Your task to perform on an android device: change notifications settings Image 0: 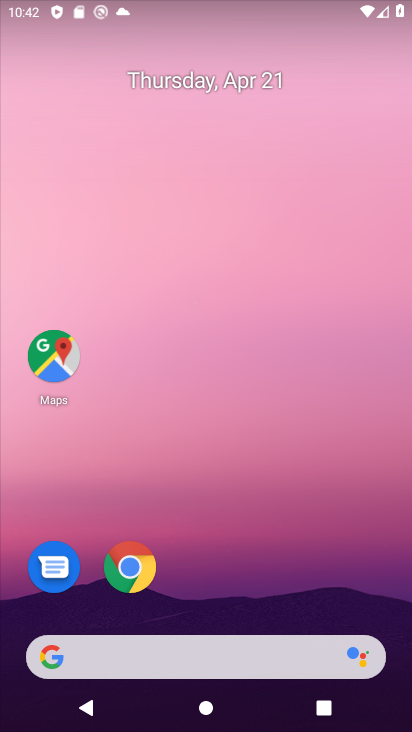
Step 0: drag from (217, 594) to (338, 42)
Your task to perform on an android device: change notifications settings Image 1: 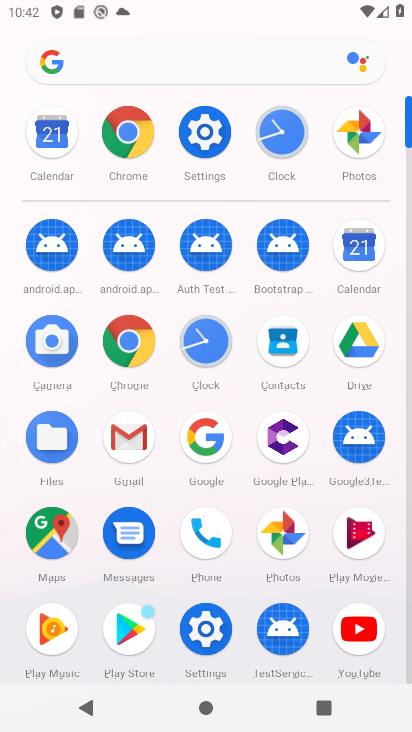
Step 1: click (211, 142)
Your task to perform on an android device: change notifications settings Image 2: 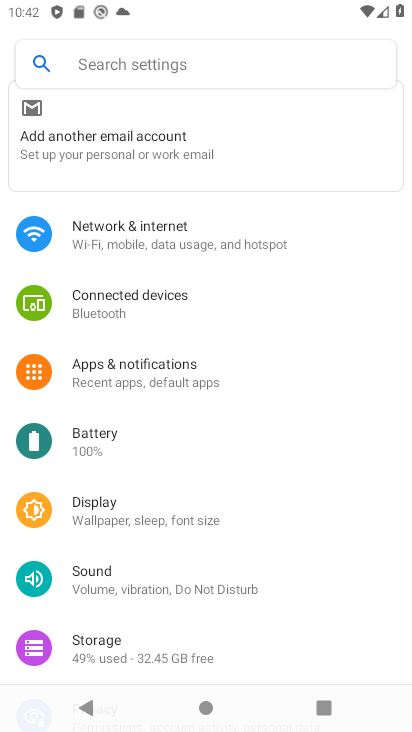
Step 2: click (166, 372)
Your task to perform on an android device: change notifications settings Image 3: 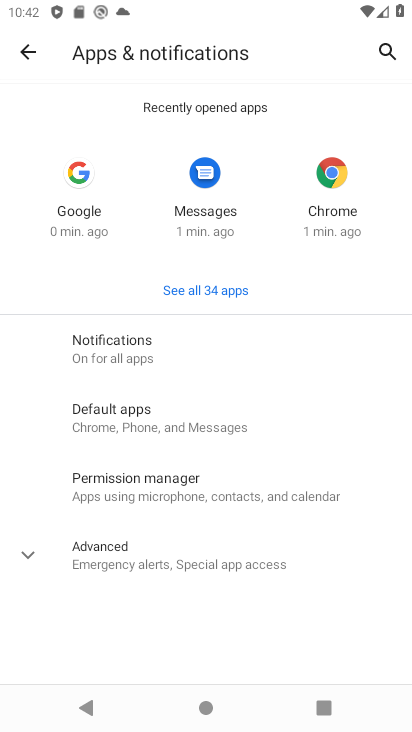
Step 3: click (129, 345)
Your task to perform on an android device: change notifications settings Image 4: 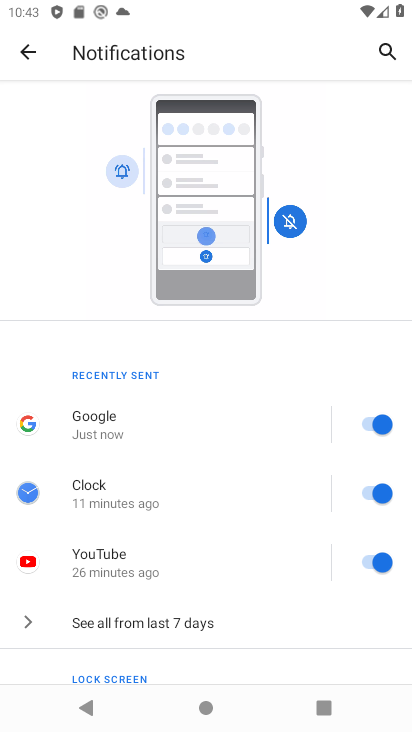
Step 4: click (368, 418)
Your task to perform on an android device: change notifications settings Image 5: 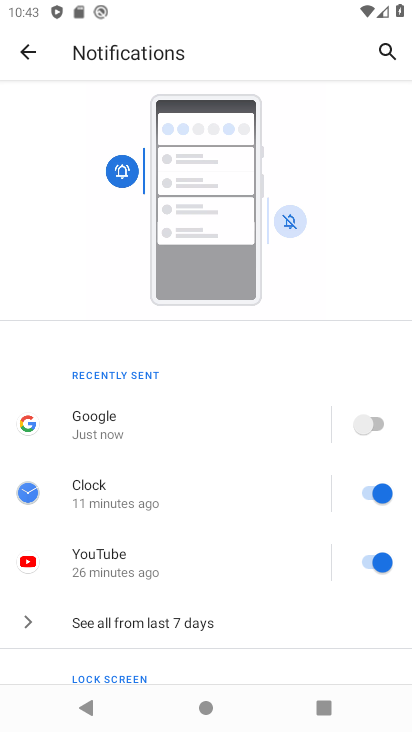
Step 5: click (369, 479)
Your task to perform on an android device: change notifications settings Image 6: 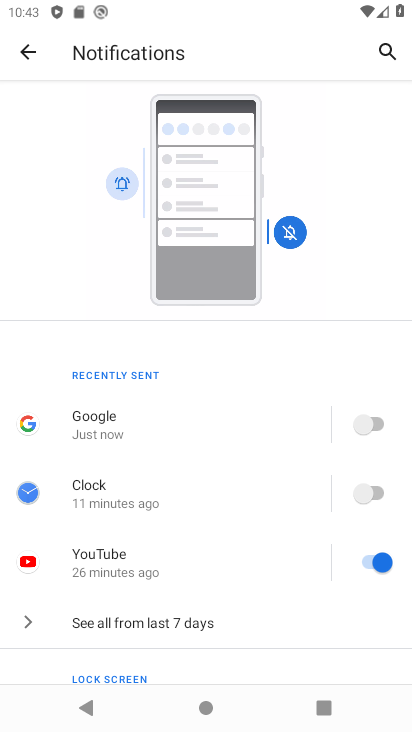
Step 6: click (367, 562)
Your task to perform on an android device: change notifications settings Image 7: 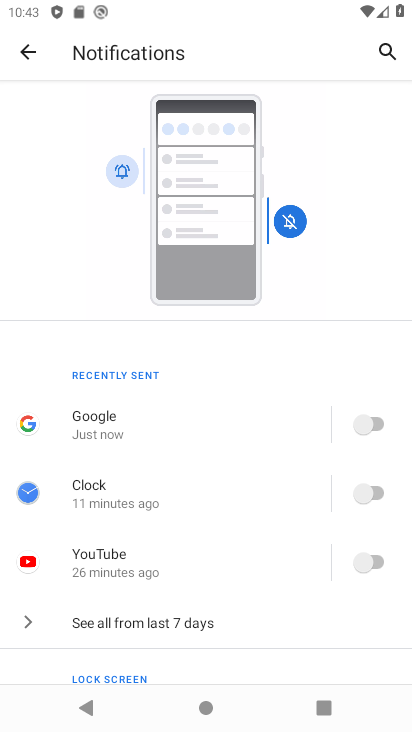
Step 7: drag from (236, 615) to (282, 215)
Your task to perform on an android device: change notifications settings Image 8: 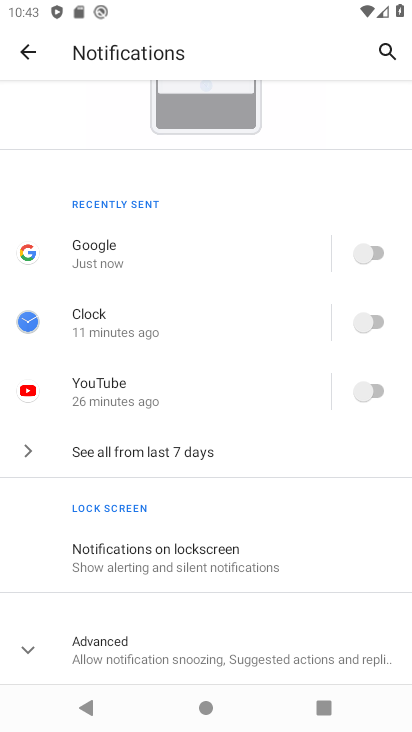
Step 8: click (216, 566)
Your task to perform on an android device: change notifications settings Image 9: 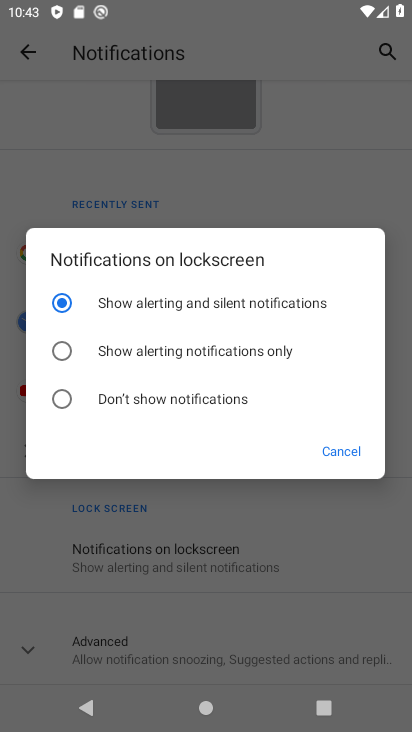
Step 9: click (66, 401)
Your task to perform on an android device: change notifications settings Image 10: 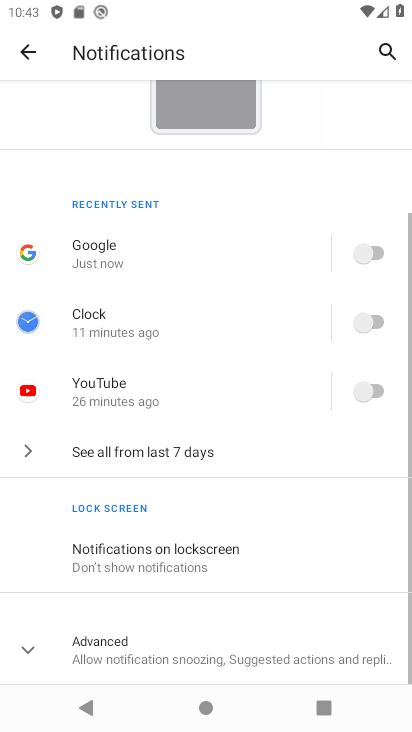
Step 10: drag from (237, 606) to (246, 408)
Your task to perform on an android device: change notifications settings Image 11: 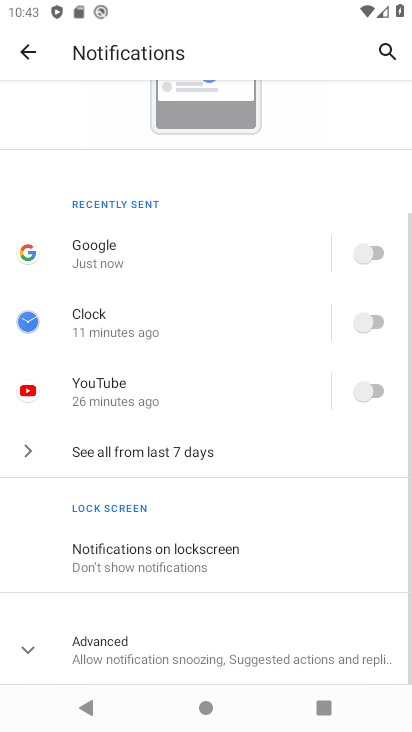
Step 11: click (62, 648)
Your task to perform on an android device: change notifications settings Image 12: 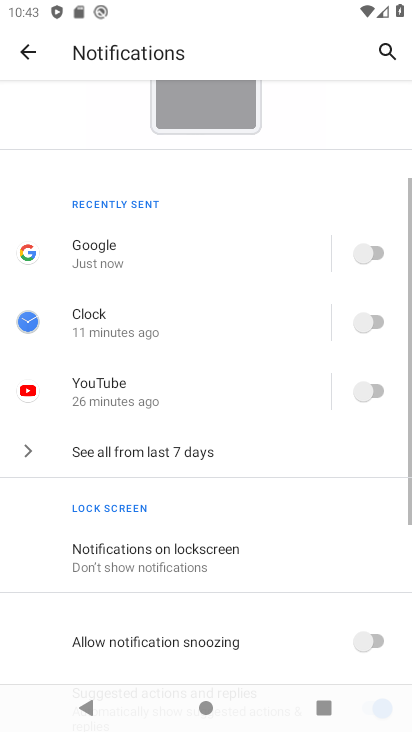
Step 12: drag from (211, 575) to (272, 140)
Your task to perform on an android device: change notifications settings Image 13: 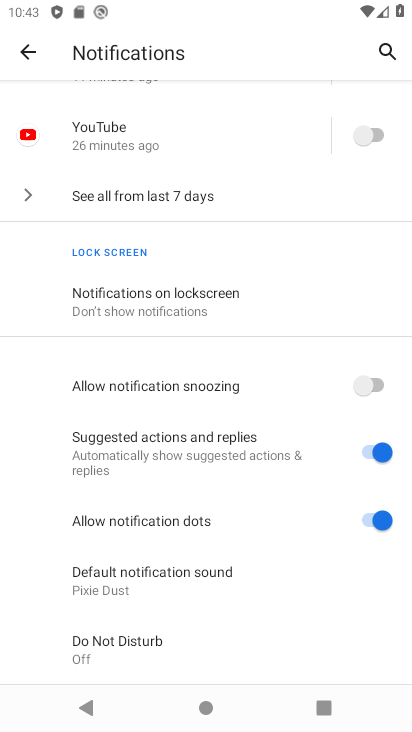
Step 13: click (380, 373)
Your task to perform on an android device: change notifications settings Image 14: 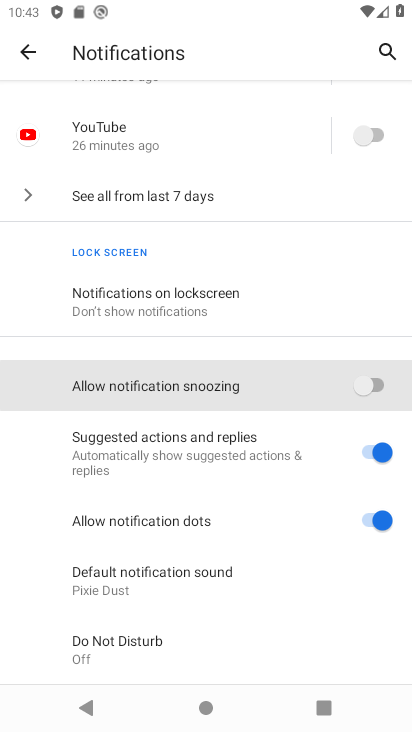
Step 14: click (362, 455)
Your task to perform on an android device: change notifications settings Image 15: 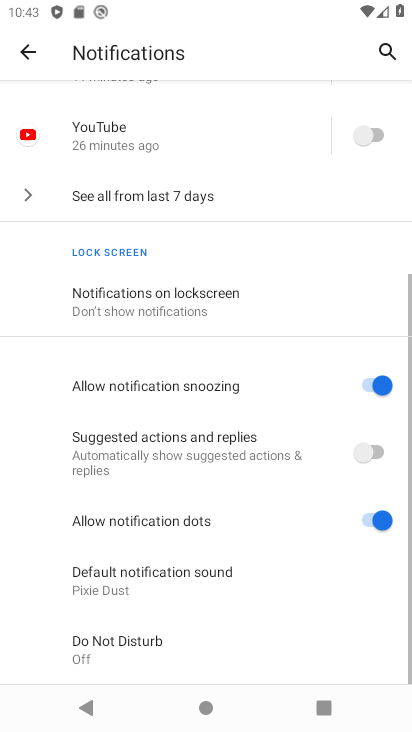
Step 15: click (376, 496)
Your task to perform on an android device: change notifications settings Image 16: 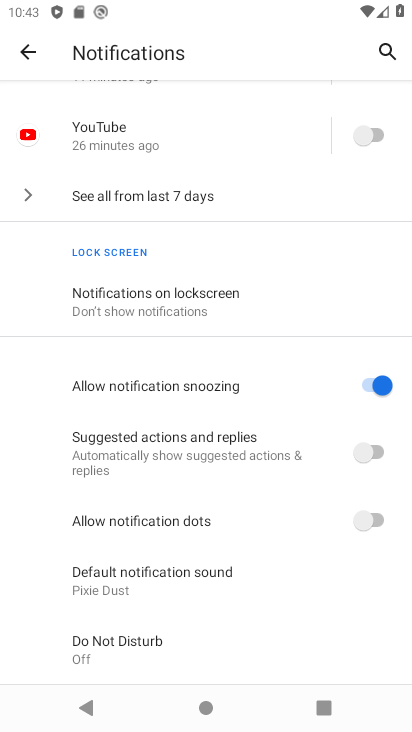
Step 16: task complete